Your task to perform on an android device: Open Google Maps Image 0: 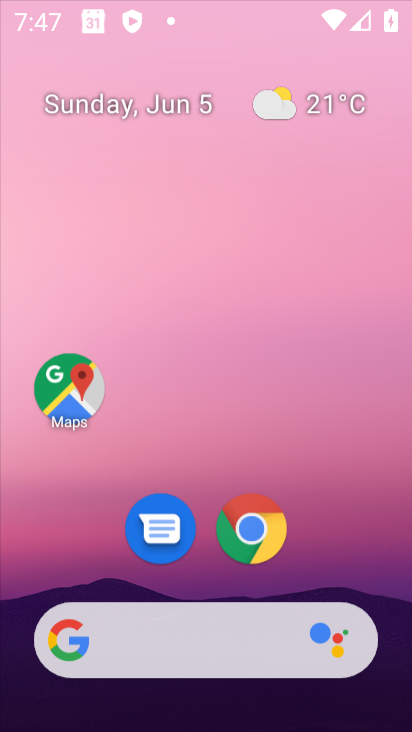
Step 0: click (396, 411)
Your task to perform on an android device: Open Google Maps Image 1: 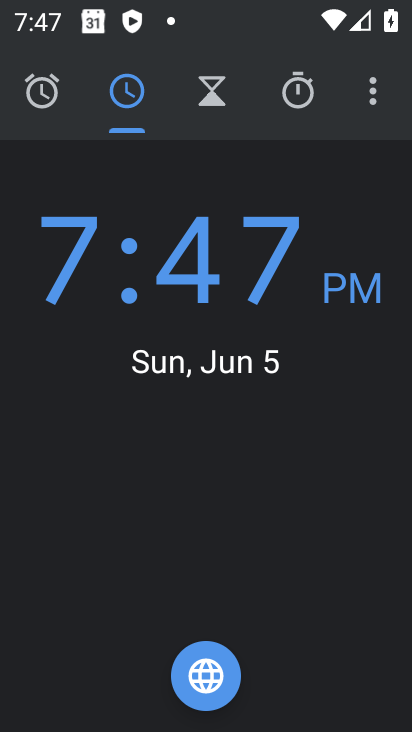
Step 1: press home button
Your task to perform on an android device: Open Google Maps Image 2: 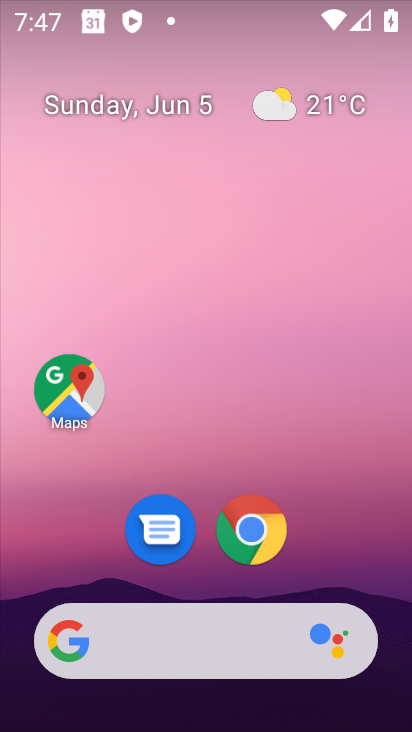
Step 2: click (73, 385)
Your task to perform on an android device: Open Google Maps Image 3: 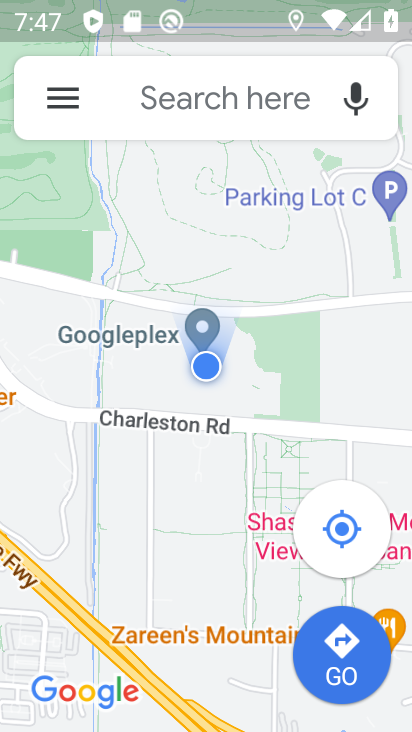
Step 3: task complete